Your task to perform on an android device: Clear all items from cart on costco.com. Search for "logitech g903" on costco.com, select the first entry, add it to the cart, then select checkout. Image 0: 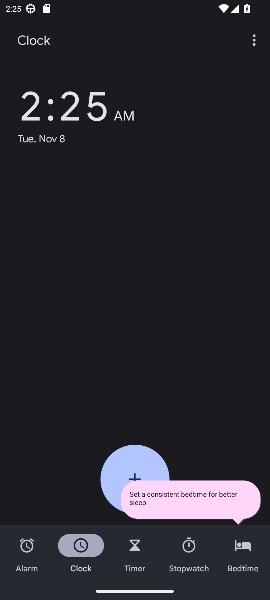
Step 0: press home button
Your task to perform on an android device: Clear all items from cart on costco.com. Search for "logitech g903" on costco.com, select the first entry, add it to the cart, then select checkout. Image 1: 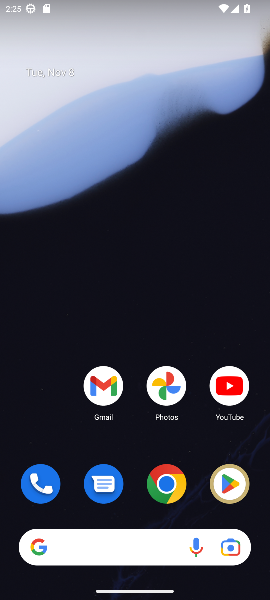
Step 1: click (173, 479)
Your task to perform on an android device: Clear all items from cart on costco.com. Search for "logitech g903" on costco.com, select the first entry, add it to the cart, then select checkout. Image 2: 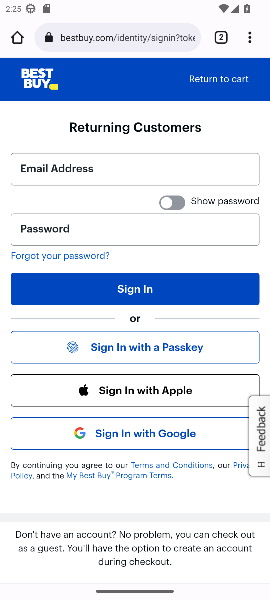
Step 2: click (99, 33)
Your task to perform on an android device: Clear all items from cart on costco.com. Search for "logitech g903" on costco.com, select the first entry, add it to the cart, then select checkout. Image 3: 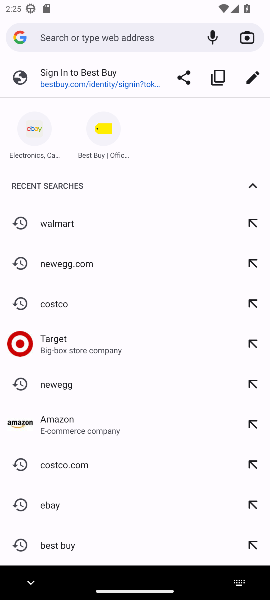
Step 3: click (58, 469)
Your task to perform on an android device: Clear all items from cart on costco.com. Search for "logitech g903" on costco.com, select the first entry, add it to the cart, then select checkout. Image 4: 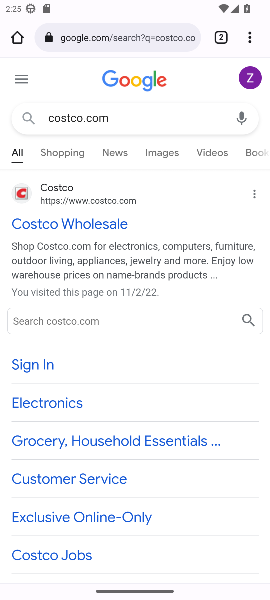
Step 4: click (85, 223)
Your task to perform on an android device: Clear all items from cart on costco.com. Search for "logitech g903" on costco.com, select the first entry, add it to the cart, then select checkout. Image 5: 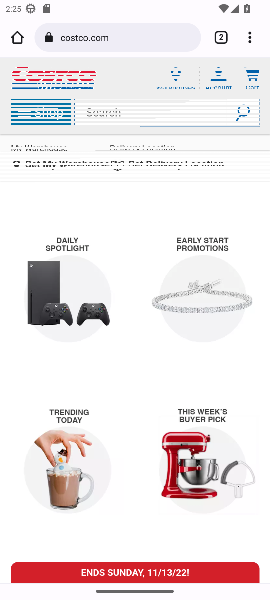
Step 5: click (100, 106)
Your task to perform on an android device: Clear all items from cart on costco.com. Search for "logitech g903" on costco.com, select the first entry, add it to the cart, then select checkout. Image 6: 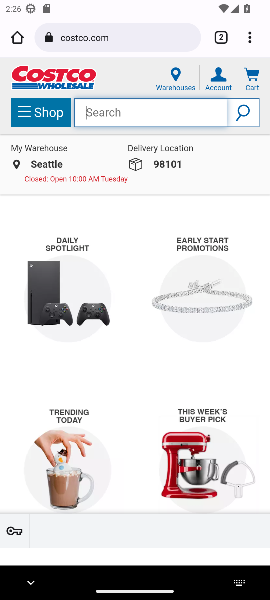
Step 6: type "logitech g903"
Your task to perform on an android device: Clear all items from cart on costco.com. Search for "logitech g903" on costco.com, select the first entry, add it to the cart, then select checkout. Image 7: 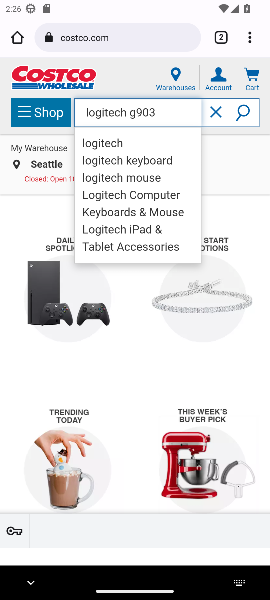
Step 7: click (245, 112)
Your task to perform on an android device: Clear all items from cart on costco.com. Search for "logitech g903" on costco.com, select the first entry, add it to the cart, then select checkout. Image 8: 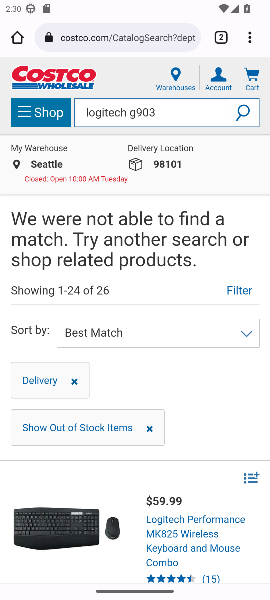
Step 8: task complete